Your task to perform on an android device: Search for Mexican restaurants on Maps Image 0: 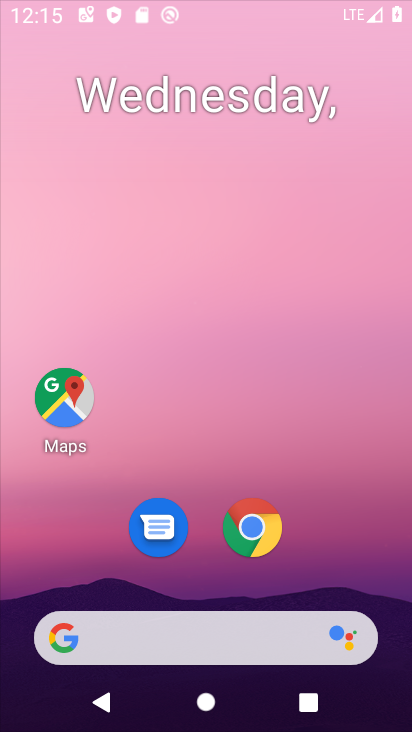
Step 0: press home button
Your task to perform on an android device: Search for Mexican restaurants on Maps Image 1: 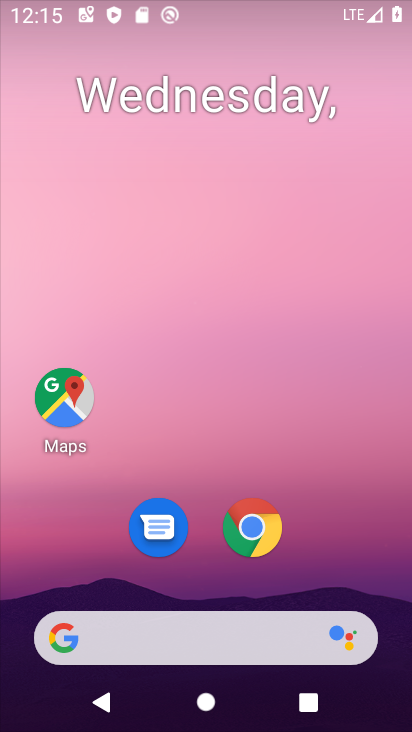
Step 1: drag from (237, 614) to (313, 25)
Your task to perform on an android device: Search for Mexican restaurants on Maps Image 2: 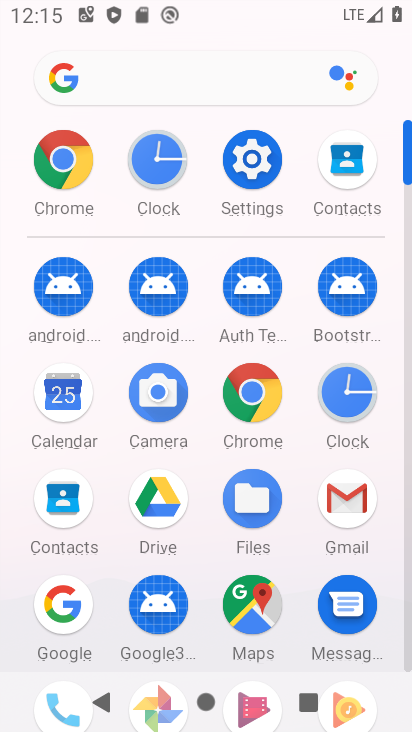
Step 2: click (258, 607)
Your task to perform on an android device: Search for Mexican restaurants on Maps Image 3: 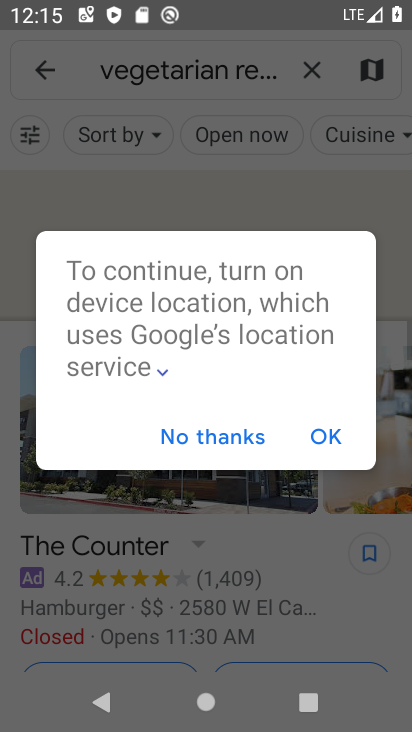
Step 3: click (265, 67)
Your task to perform on an android device: Search for Mexican restaurants on Maps Image 4: 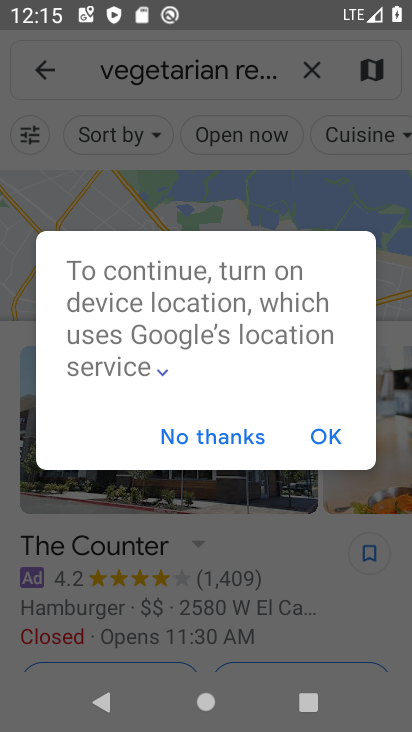
Step 4: click (246, 438)
Your task to perform on an android device: Search for Mexican restaurants on Maps Image 5: 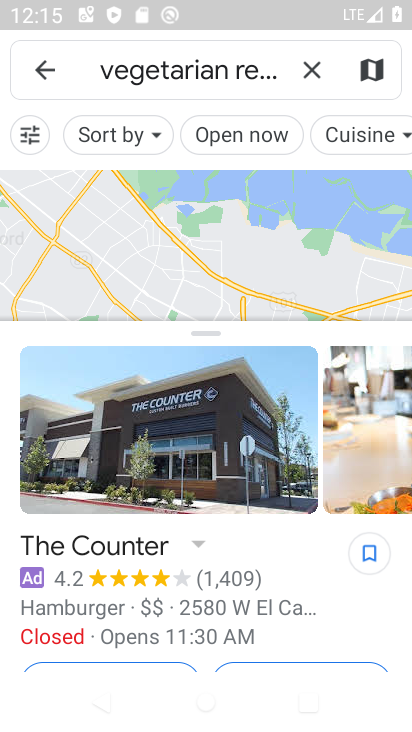
Step 5: drag from (316, 65) to (363, 65)
Your task to perform on an android device: Search for Mexican restaurants on Maps Image 6: 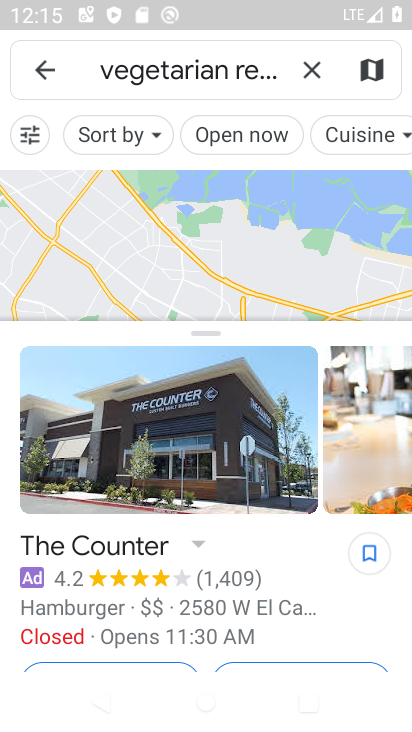
Step 6: click (317, 70)
Your task to perform on an android device: Search for Mexican restaurants on Maps Image 7: 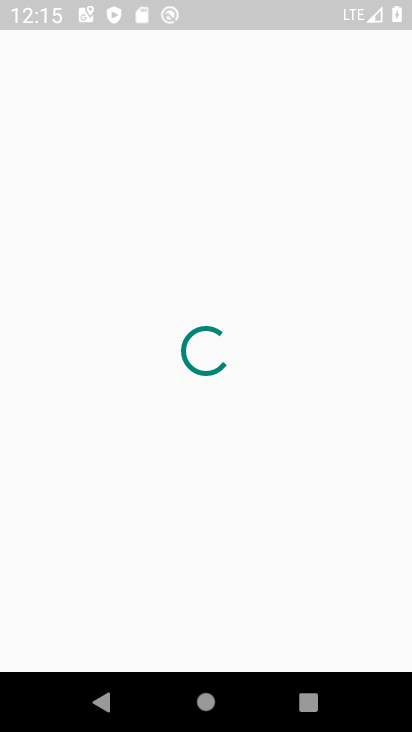
Step 7: click (150, 63)
Your task to perform on an android device: Search for Mexican restaurants on Maps Image 8: 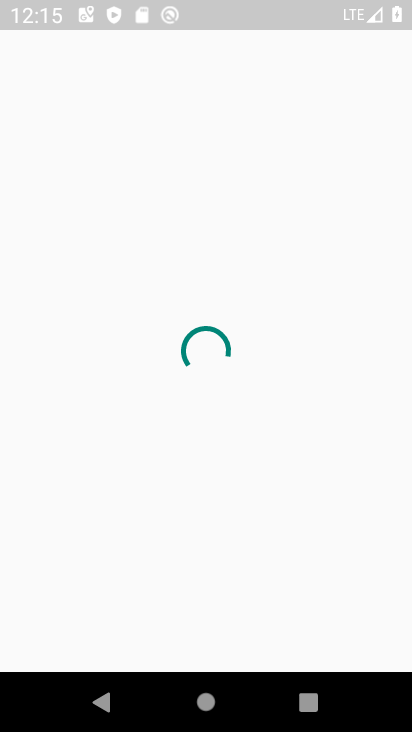
Step 8: click (150, 63)
Your task to perform on an android device: Search for Mexican restaurants on Maps Image 9: 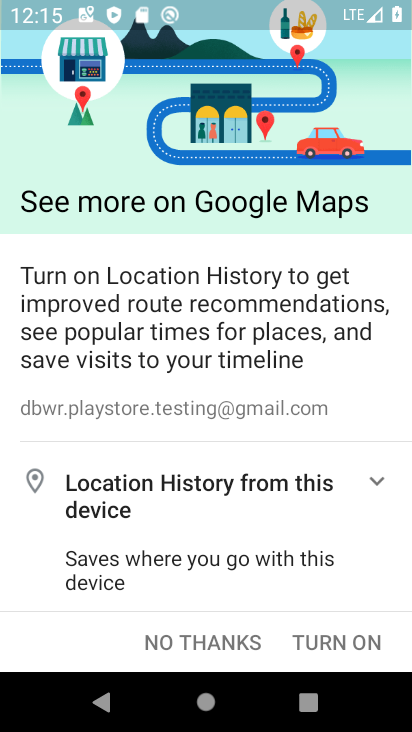
Step 9: press back button
Your task to perform on an android device: Search for Mexican restaurants on Maps Image 10: 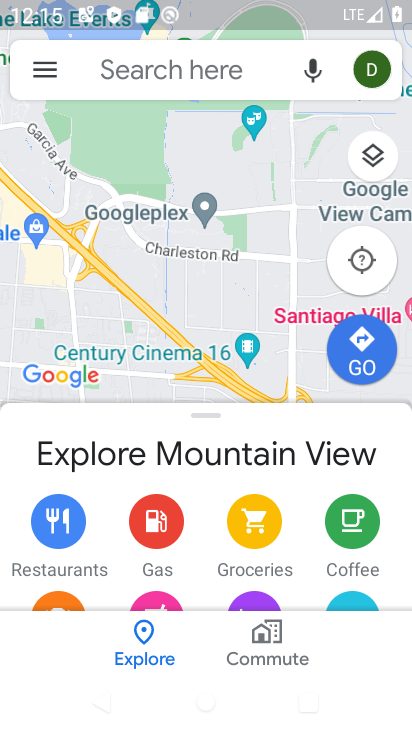
Step 10: click (236, 79)
Your task to perform on an android device: Search for Mexican restaurants on Maps Image 11: 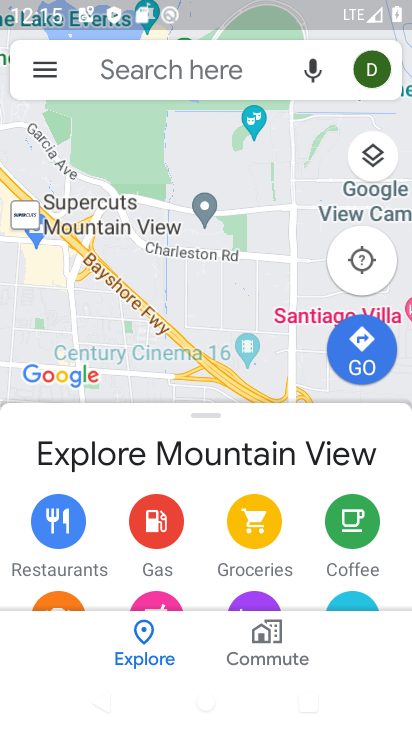
Step 11: click (236, 79)
Your task to perform on an android device: Search for Mexican restaurants on Maps Image 12: 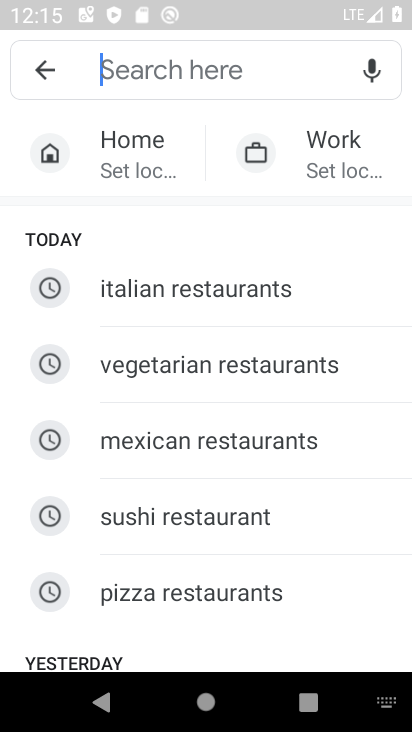
Step 12: click (254, 451)
Your task to perform on an android device: Search for Mexican restaurants on Maps Image 13: 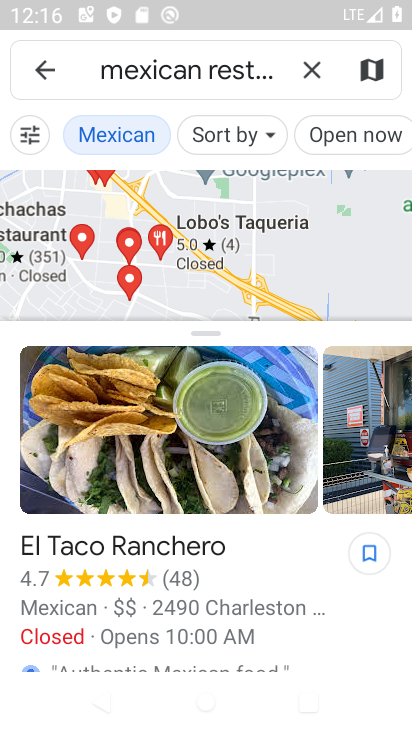
Step 13: task complete